Your task to perform on an android device: change the clock display to digital Image 0: 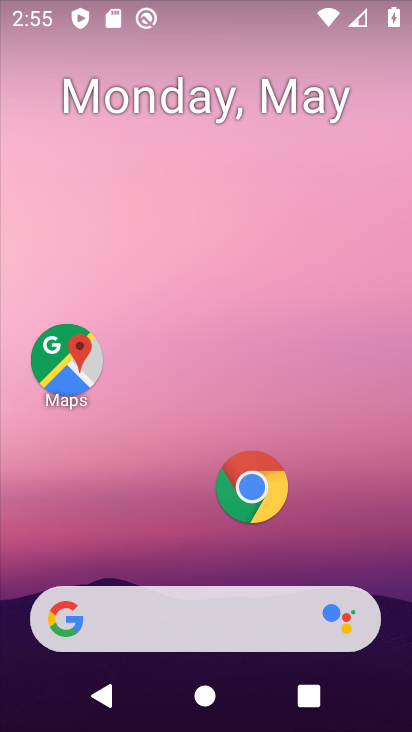
Step 0: drag from (187, 548) to (230, 0)
Your task to perform on an android device: change the clock display to digital Image 1: 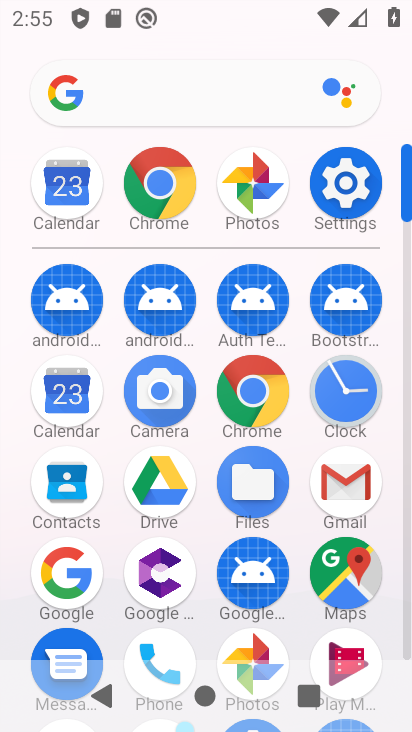
Step 1: click (352, 382)
Your task to perform on an android device: change the clock display to digital Image 2: 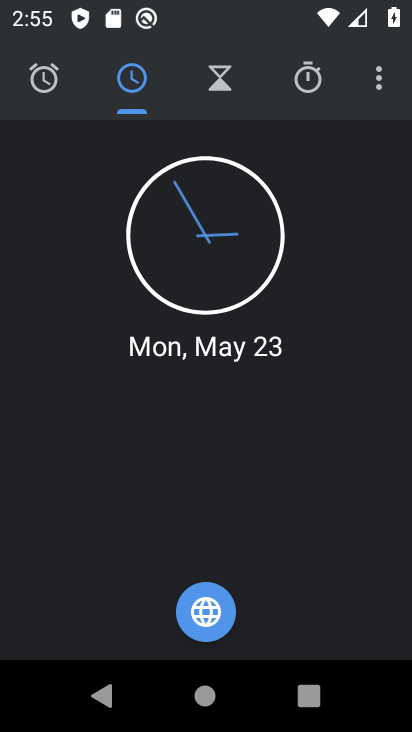
Step 2: click (388, 76)
Your task to perform on an android device: change the clock display to digital Image 3: 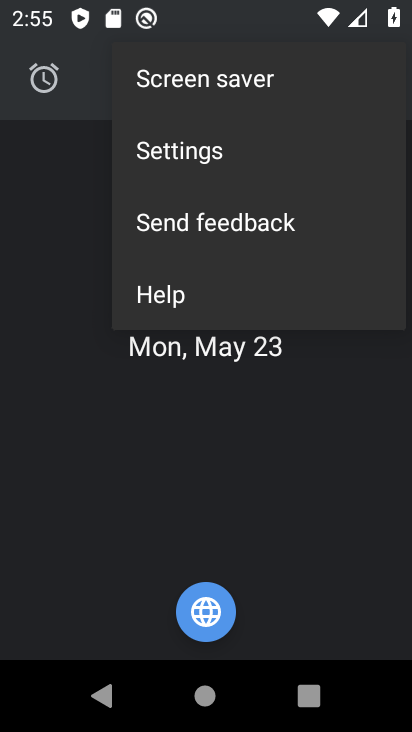
Step 3: click (231, 153)
Your task to perform on an android device: change the clock display to digital Image 4: 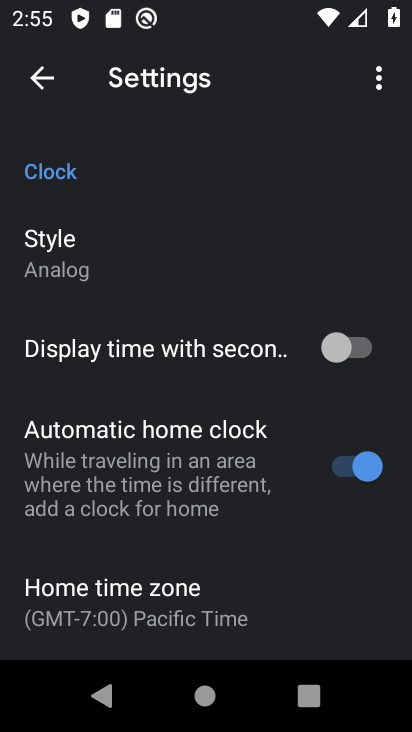
Step 4: click (43, 241)
Your task to perform on an android device: change the clock display to digital Image 5: 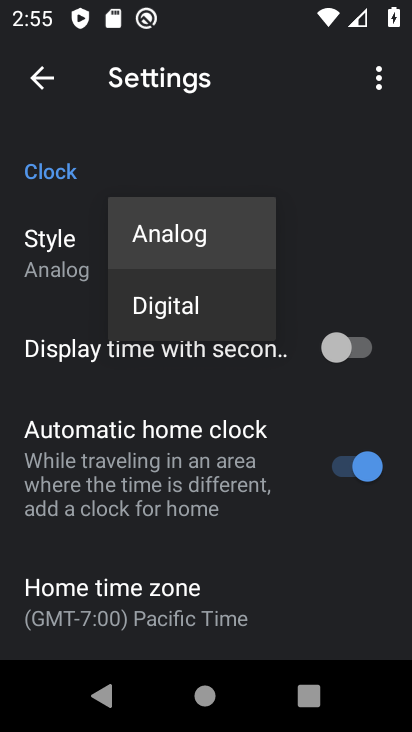
Step 5: click (199, 313)
Your task to perform on an android device: change the clock display to digital Image 6: 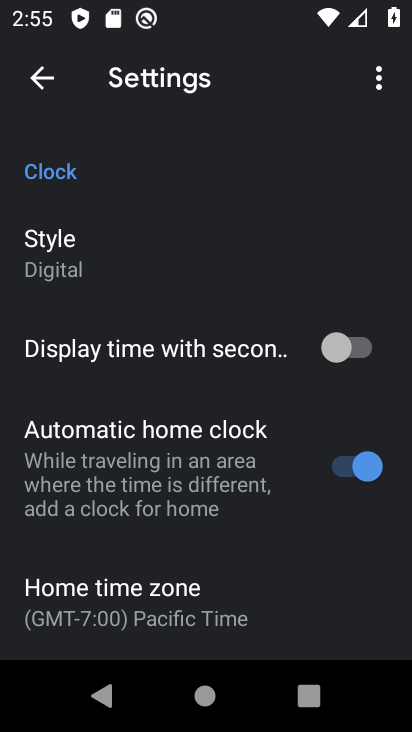
Step 6: task complete